Your task to perform on an android device: Turn off the flashlight Image 0: 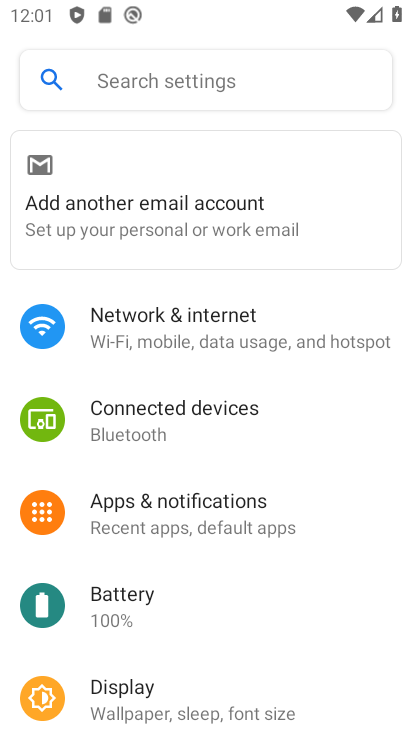
Step 0: drag from (224, 3) to (203, 518)
Your task to perform on an android device: Turn off the flashlight Image 1: 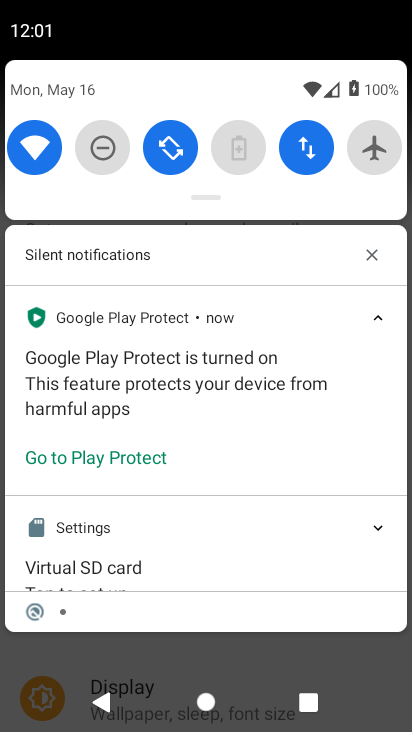
Step 1: task complete